Your task to perform on an android device: Search for a new phone on Amazon. Image 0: 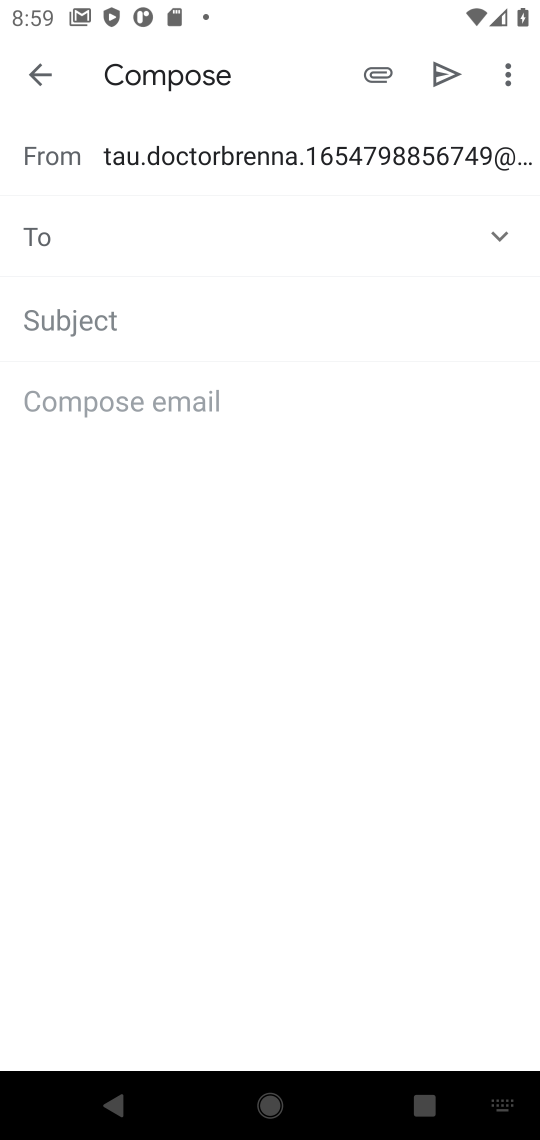
Step 0: press home button
Your task to perform on an android device: Search for a new phone on Amazon. Image 1: 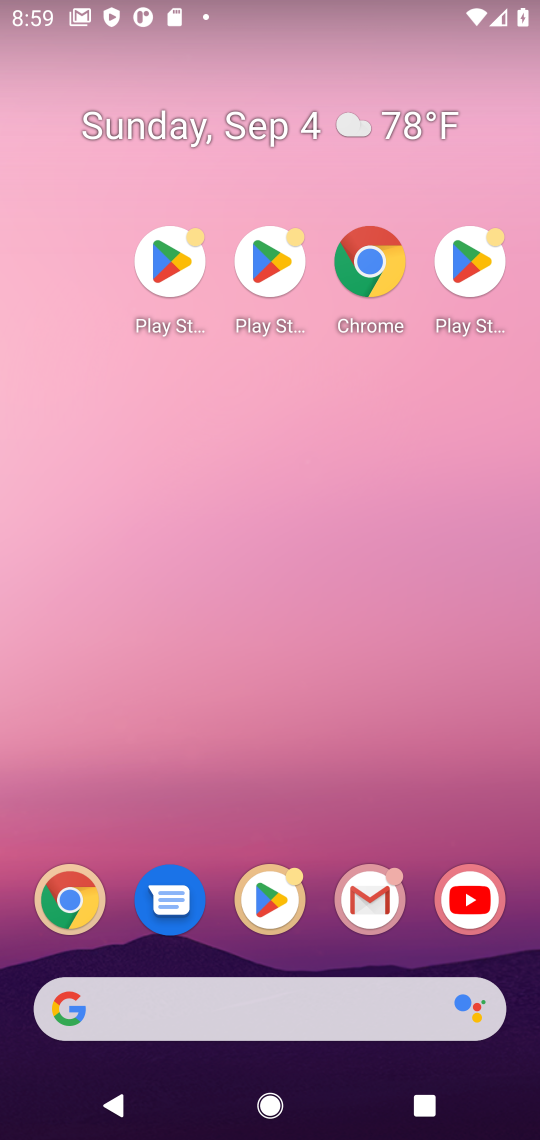
Step 1: drag from (236, 453) to (196, 70)
Your task to perform on an android device: Search for a new phone on Amazon. Image 2: 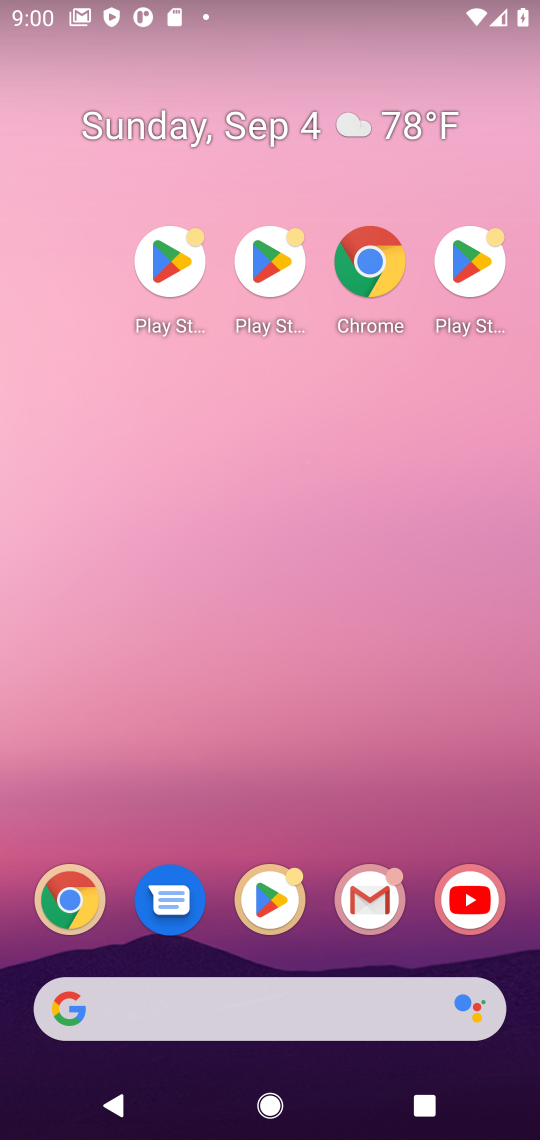
Step 2: drag from (334, 958) to (251, 148)
Your task to perform on an android device: Search for a new phone on Amazon. Image 3: 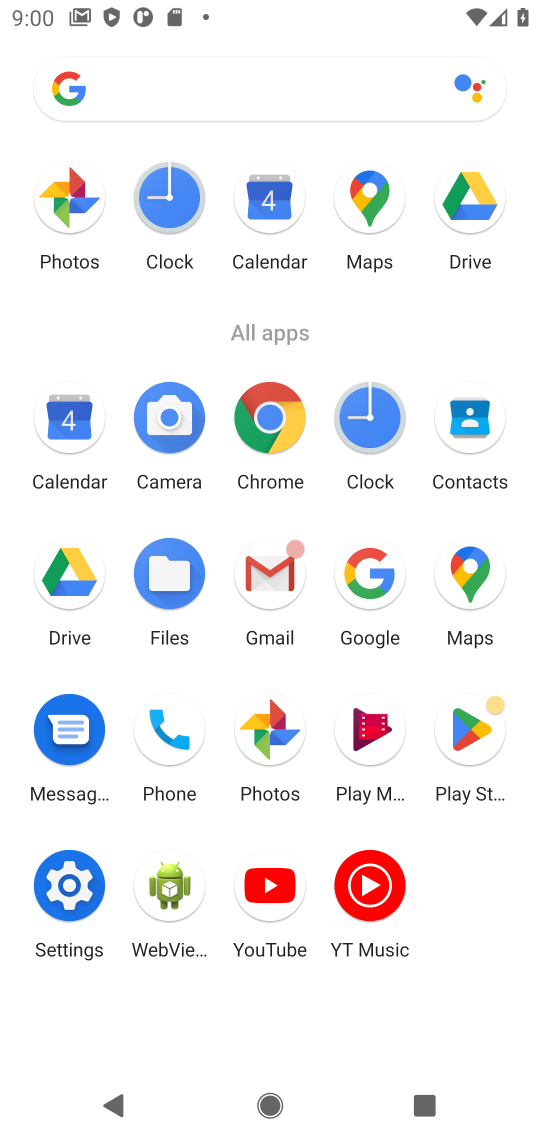
Step 3: click (257, 433)
Your task to perform on an android device: Search for a new phone on Amazon. Image 4: 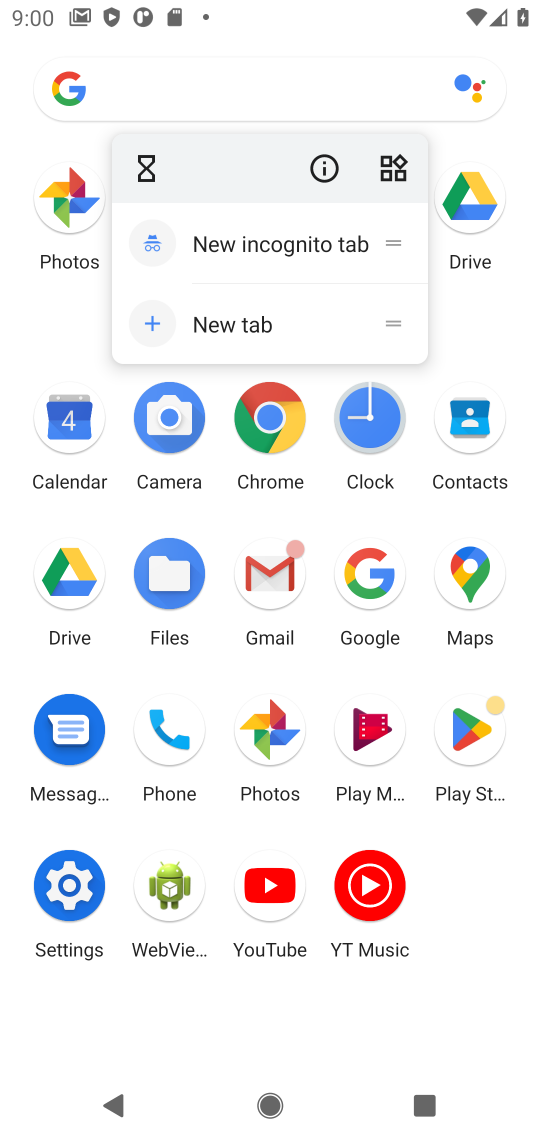
Step 4: click (293, 413)
Your task to perform on an android device: Search for a new phone on Amazon. Image 5: 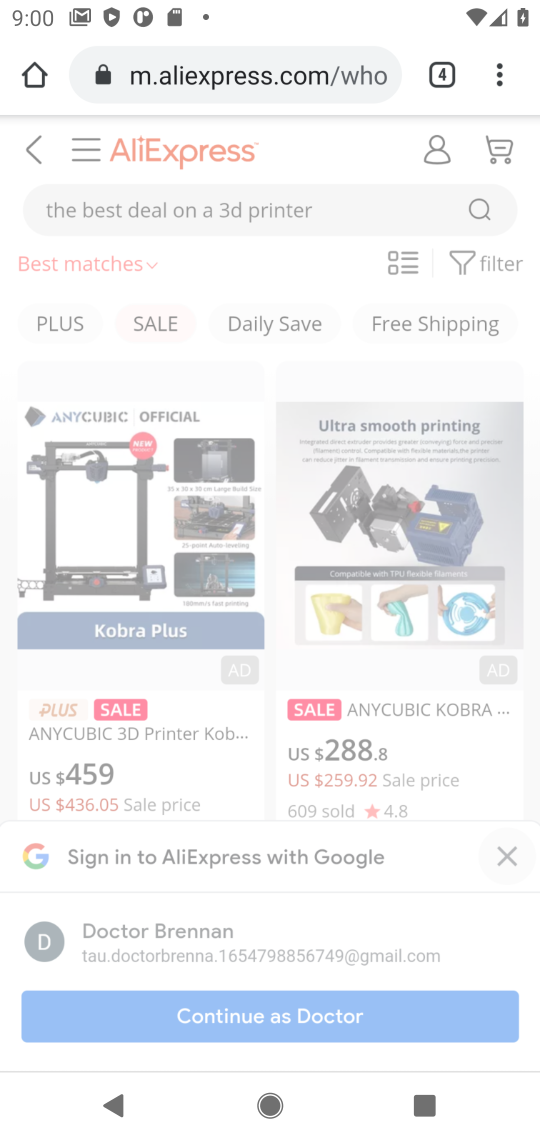
Step 5: click (448, 71)
Your task to perform on an android device: Search for a new phone on Amazon. Image 6: 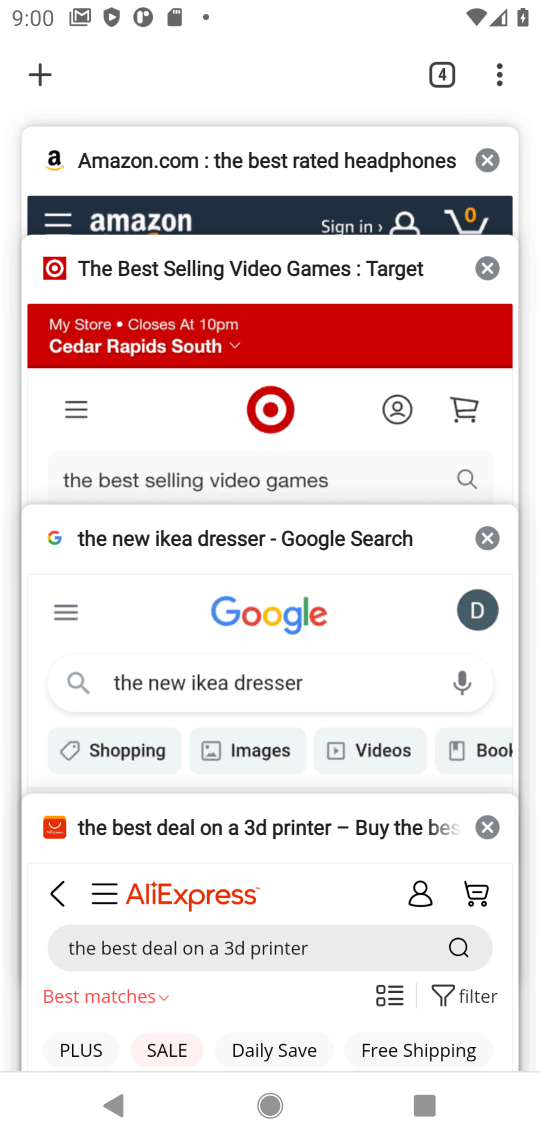
Step 6: click (26, 73)
Your task to perform on an android device: Search for a new phone on Amazon. Image 7: 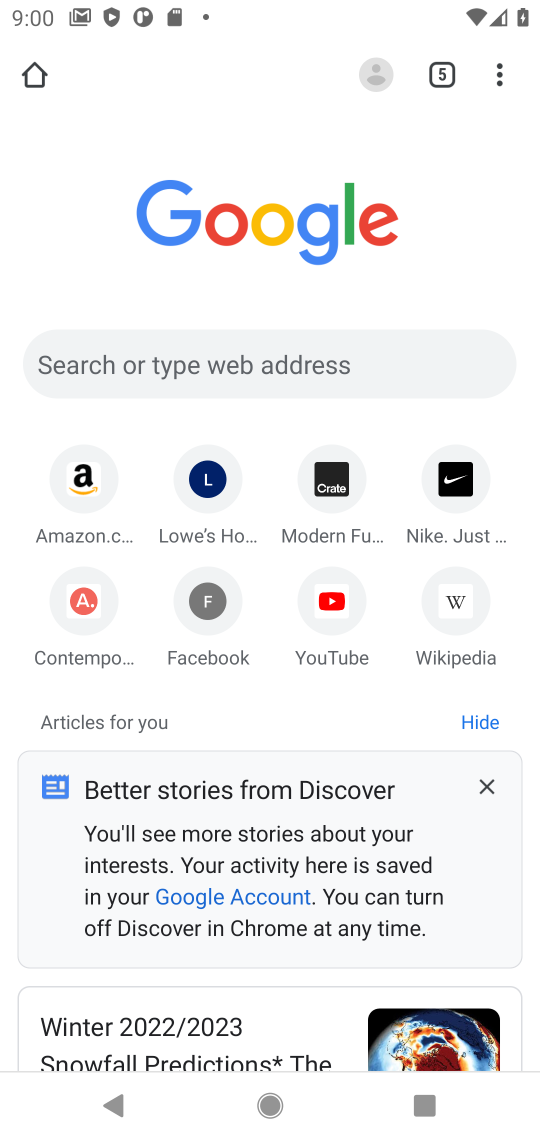
Step 7: click (54, 474)
Your task to perform on an android device: Search for a new phone on Amazon. Image 8: 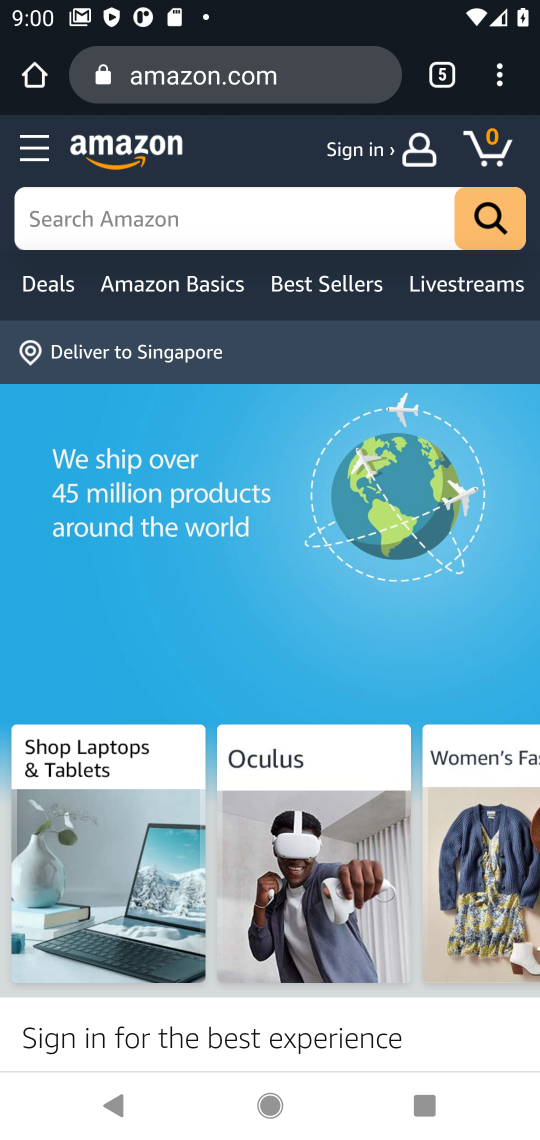
Step 8: click (154, 217)
Your task to perform on an android device: Search for a new phone on Amazon. Image 9: 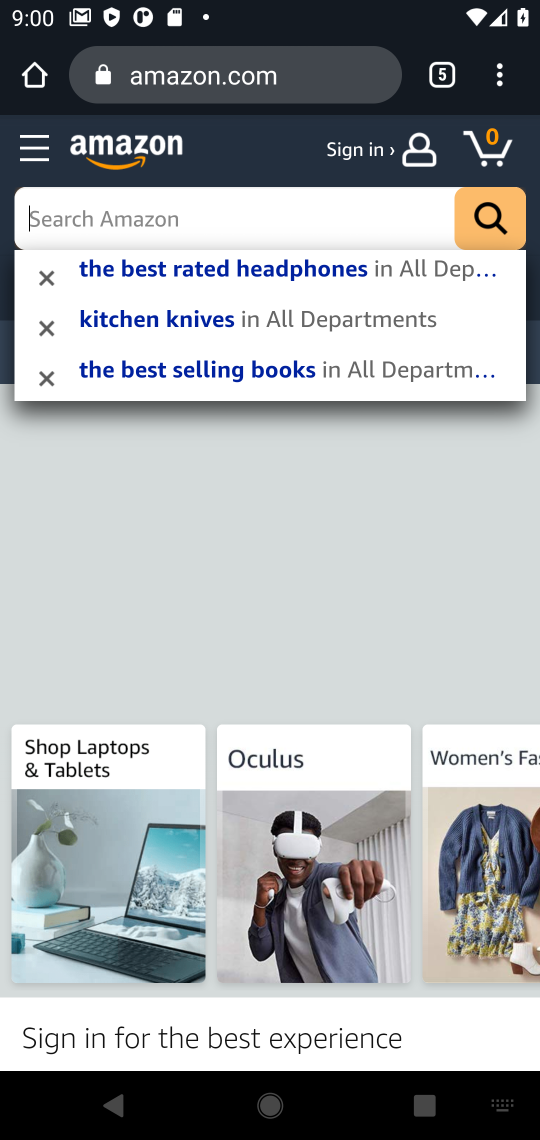
Step 9: type "new phone"
Your task to perform on an android device: Search for a new phone on Amazon. Image 10: 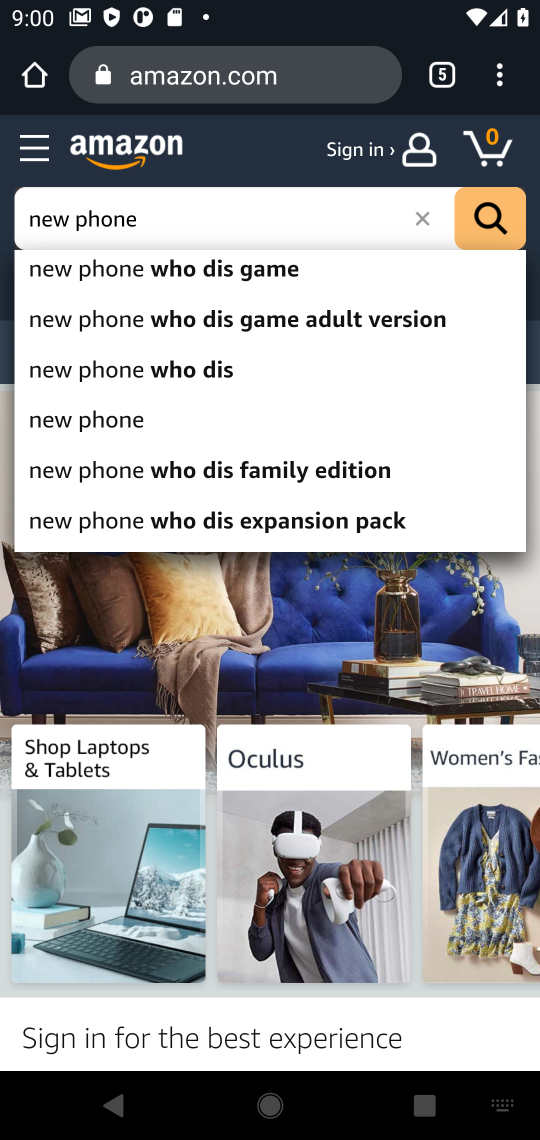
Step 10: click (114, 429)
Your task to perform on an android device: Search for a new phone on Amazon. Image 11: 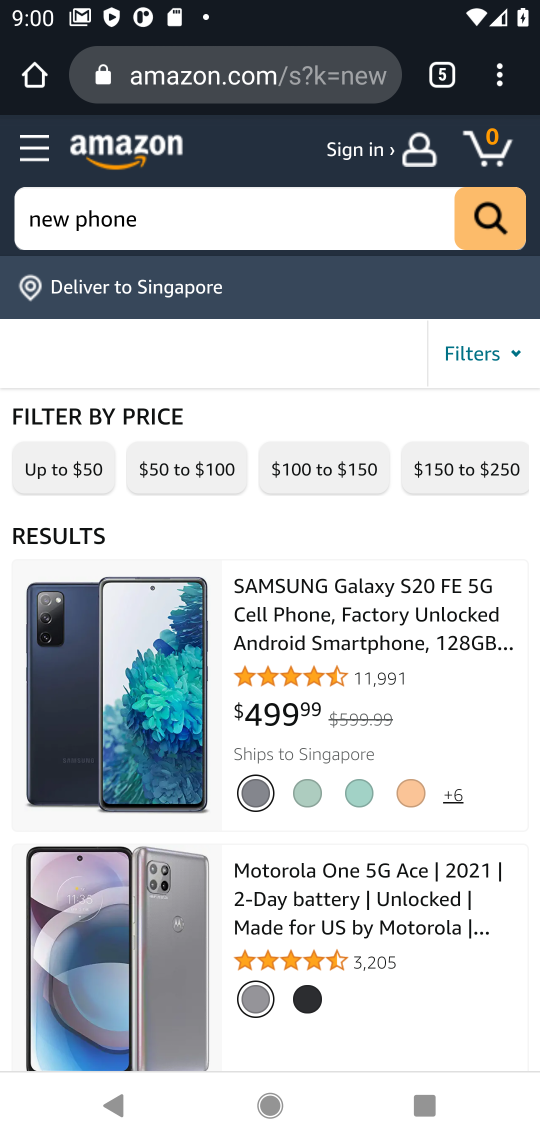
Step 11: drag from (319, 714) to (306, 198)
Your task to perform on an android device: Search for a new phone on Amazon. Image 12: 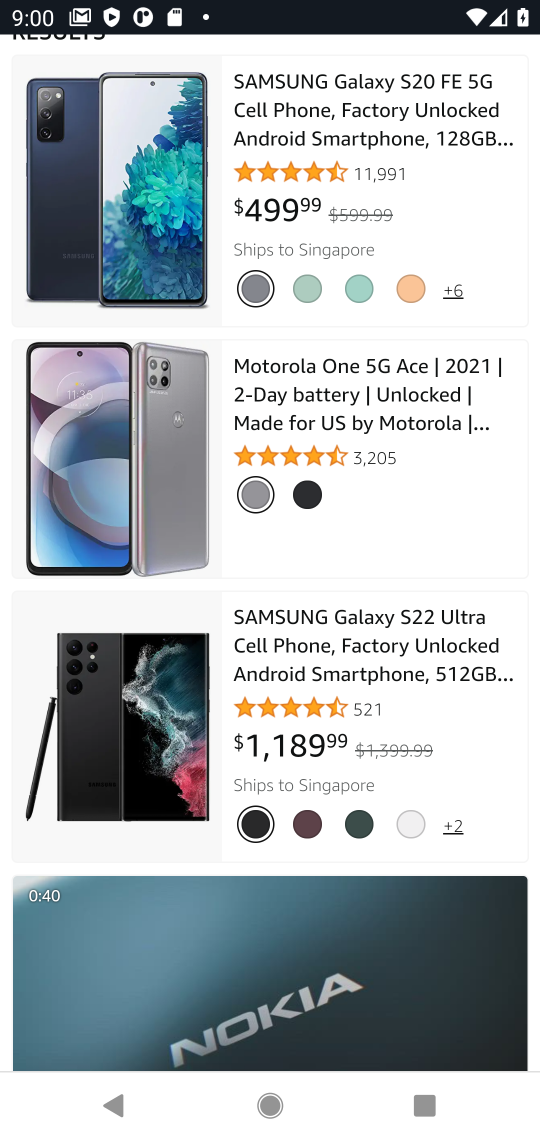
Step 12: click (378, 109)
Your task to perform on an android device: Search for a new phone on Amazon. Image 13: 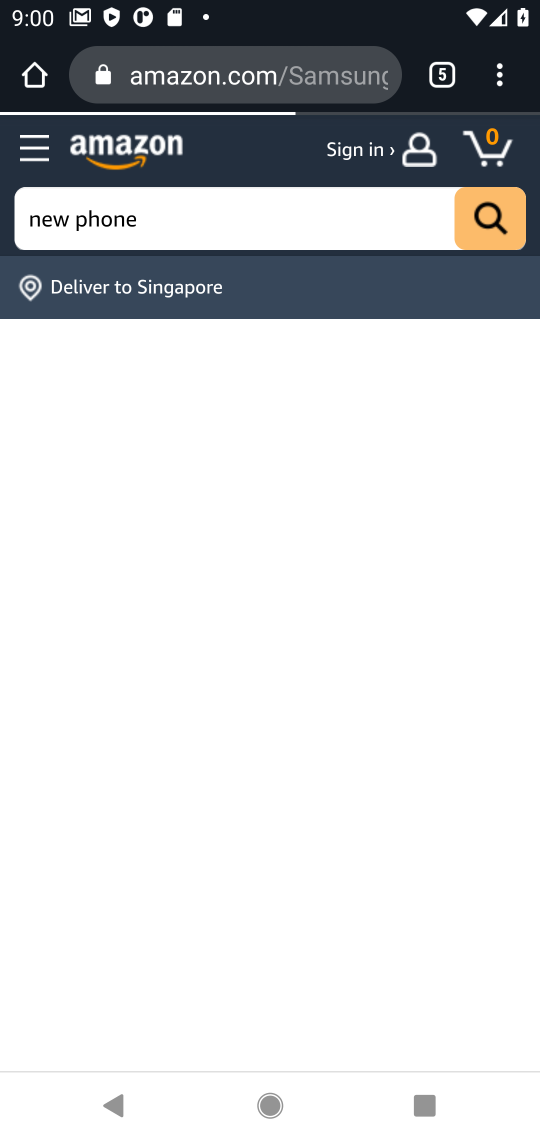
Step 13: task complete